Your task to perform on an android device: open a new tab in the chrome app Image 0: 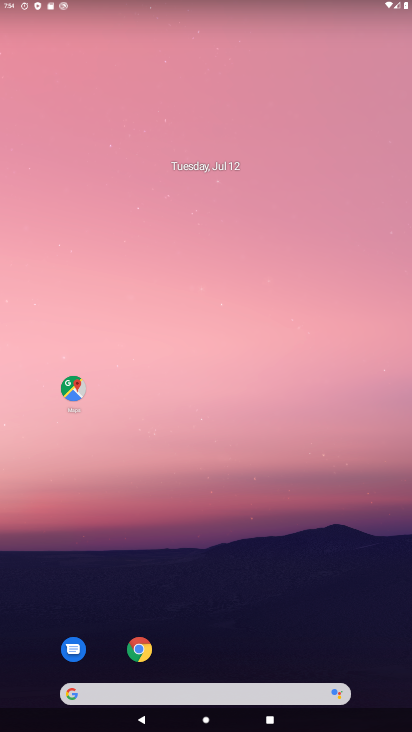
Step 0: click (140, 653)
Your task to perform on an android device: open a new tab in the chrome app Image 1: 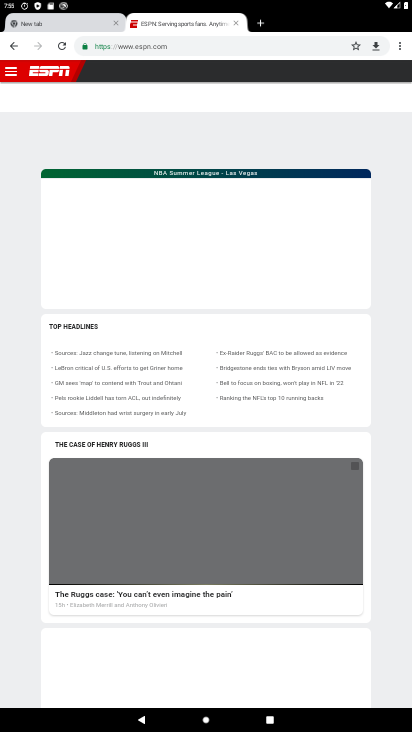
Step 1: click (263, 19)
Your task to perform on an android device: open a new tab in the chrome app Image 2: 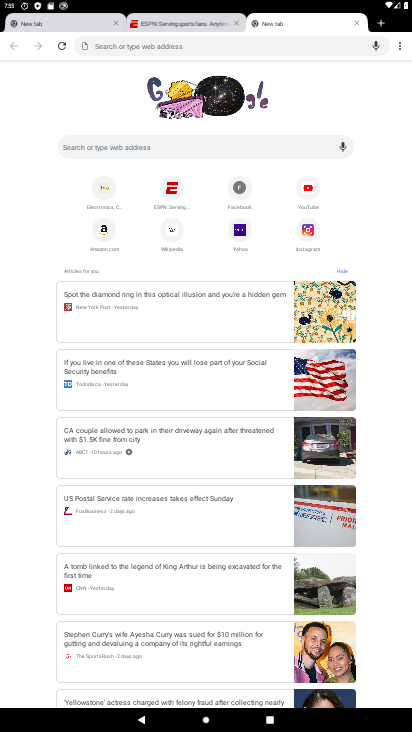
Step 2: task complete